Your task to perform on an android device: What's on my calendar tomorrow? Image 0: 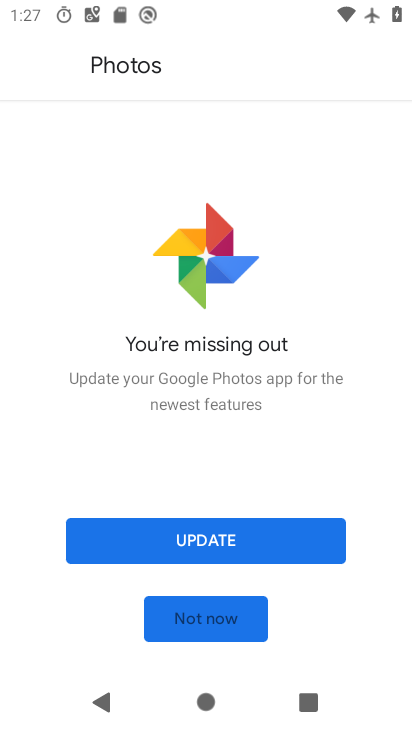
Step 0: press home button
Your task to perform on an android device: What's on my calendar tomorrow? Image 1: 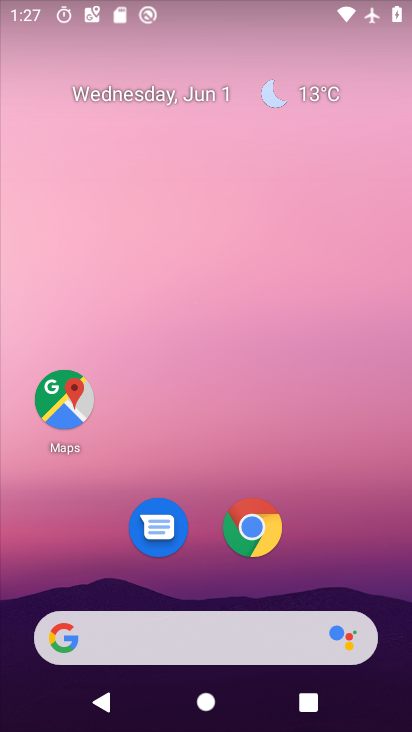
Step 1: drag from (323, 592) to (303, 0)
Your task to perform on an android device: What's on my calendar tomorrow? Image 2: 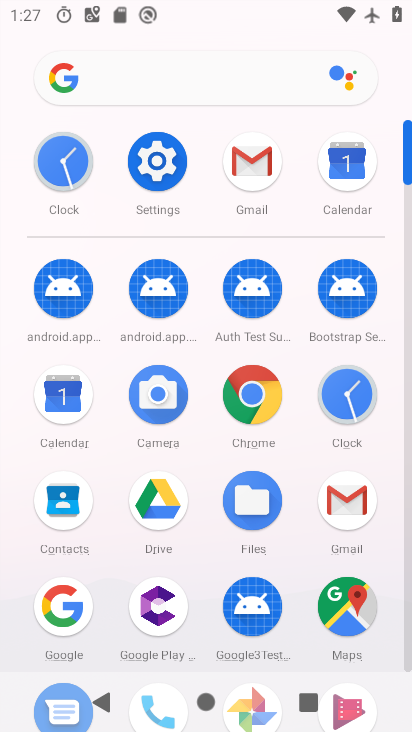
Step 2: click (347, 168)
Your task to perform on an android device: What's on my calendar tomorrow? Image 3: 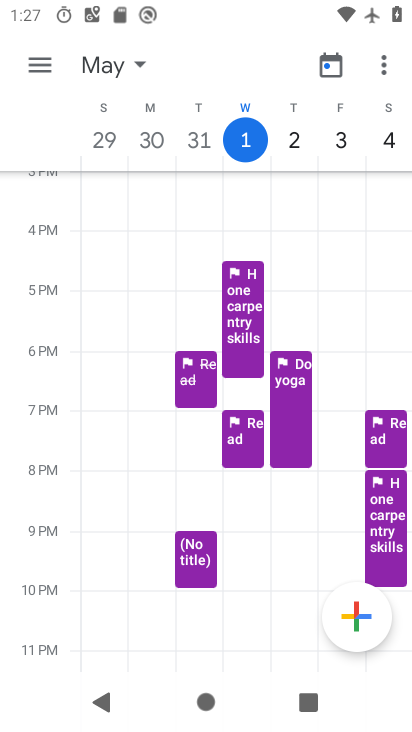
Step 3: click (37, 69)
Your task to perform on an android device: What's on my calendar tomorrow? Image 4: 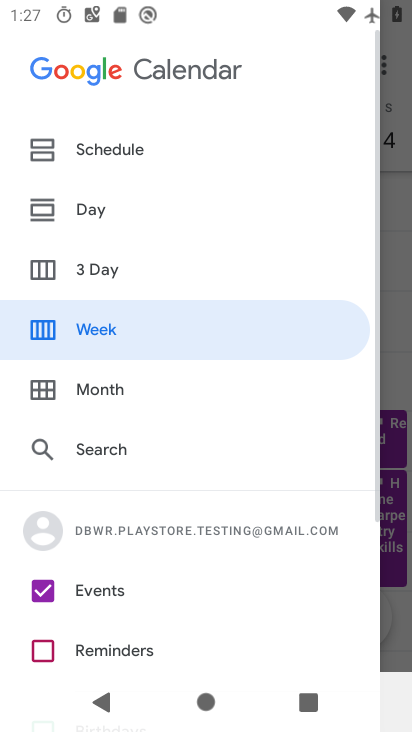
Step 4: click (88, 149)
Your task to perform on an android device: What's on my calendar tomorrow? Image 5: 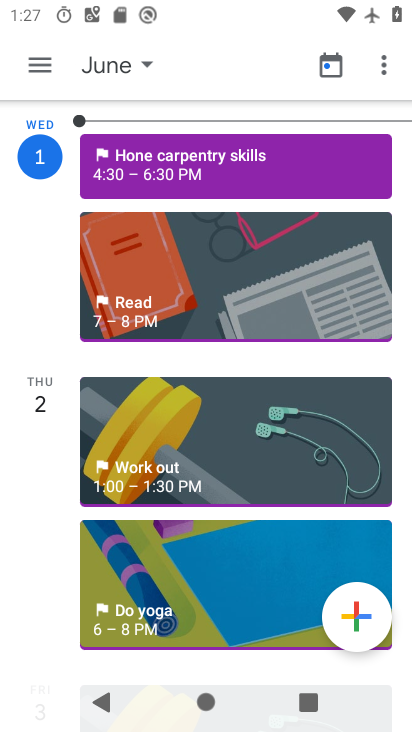
Step 5: drag from (195, 429) to (174, 306)
Your task to perform on an android device: What's on my calendar tomorrow? Image 6: 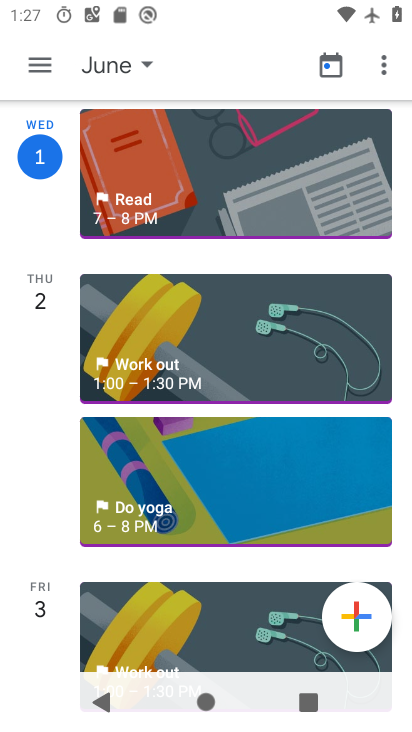
Step 6: click (25, 58)
Your task to perform on an android device: What's on my calendar tomorrow? Image 7: 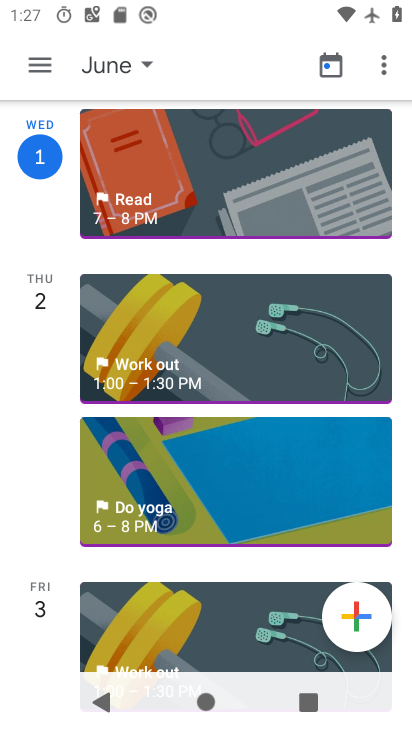
Step 7: click (148, 71)
Your task to perform on an android device: What's on my calendar tomorrow? Image 8: 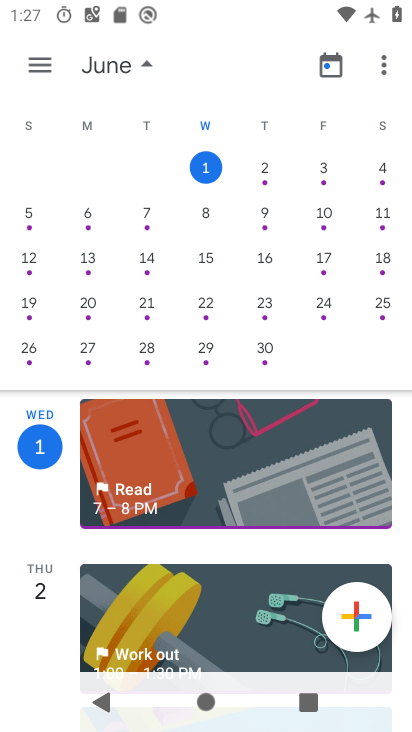
Step 8: click (256, 178)
Your task to perform on an android device: What's on my calendar tomorrow? Image 9: 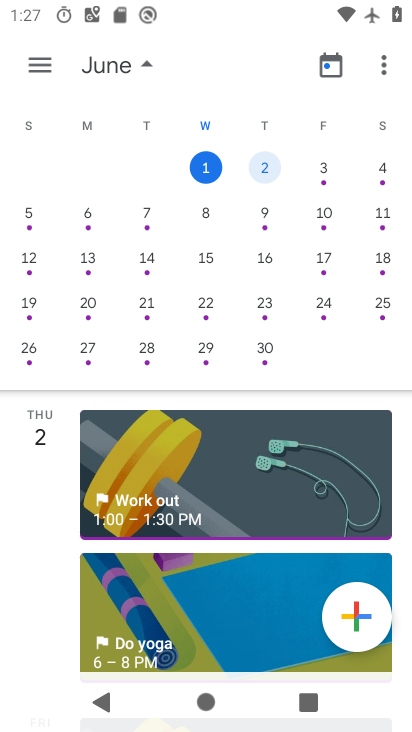
Step 9: click (36, 63)
Your task to perform on an android device: What's on my calendar tomorrow? Image 10: 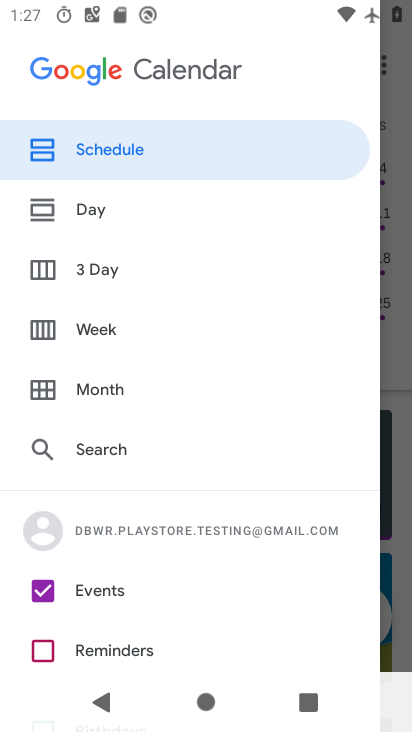
Step 10: click (70, 202)
Your task to perform on an android device: What's on my calendar tomorrow? Image 11: 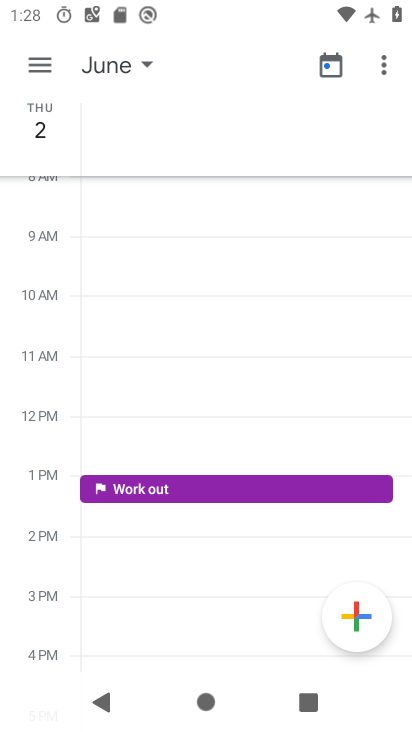
Step 11: task complete